Your task to perform on an android device: Do I have any events today? Image 0: 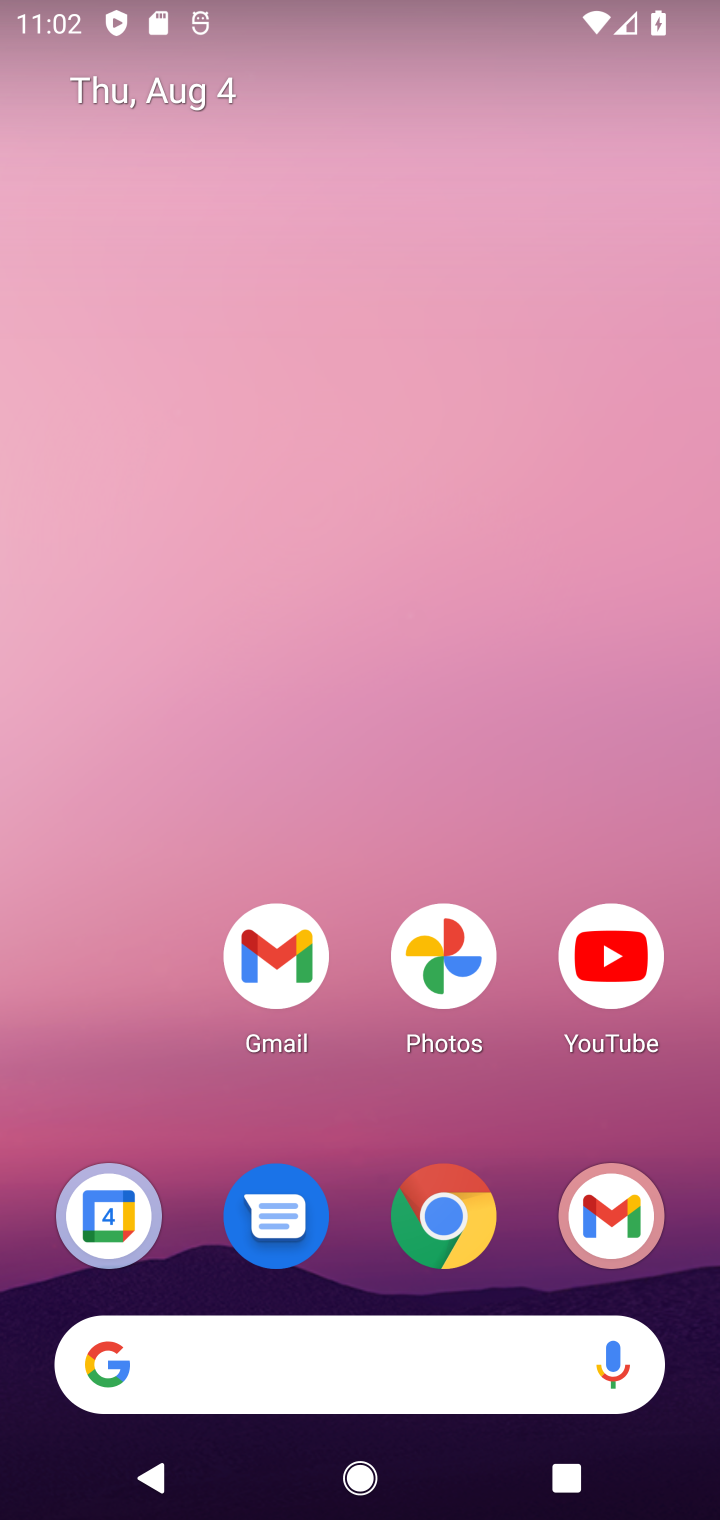
Step 0: click (109, 1217)
Your task to perform on an android device: Do I have any events today? Image 1: 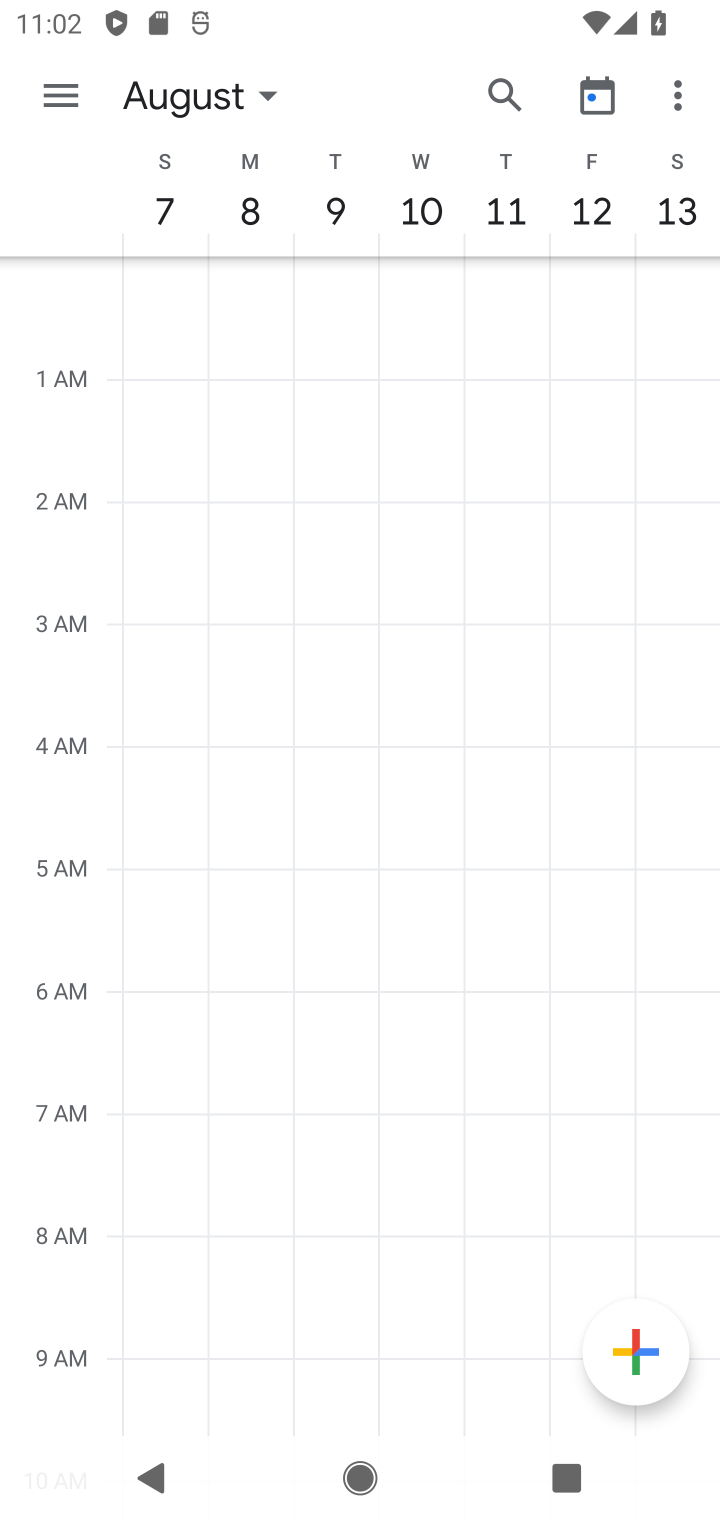
Step 1: drag from (153, 551) to (717, 435)
Your task to perform on an android device: Do I have any events today? Image 2: 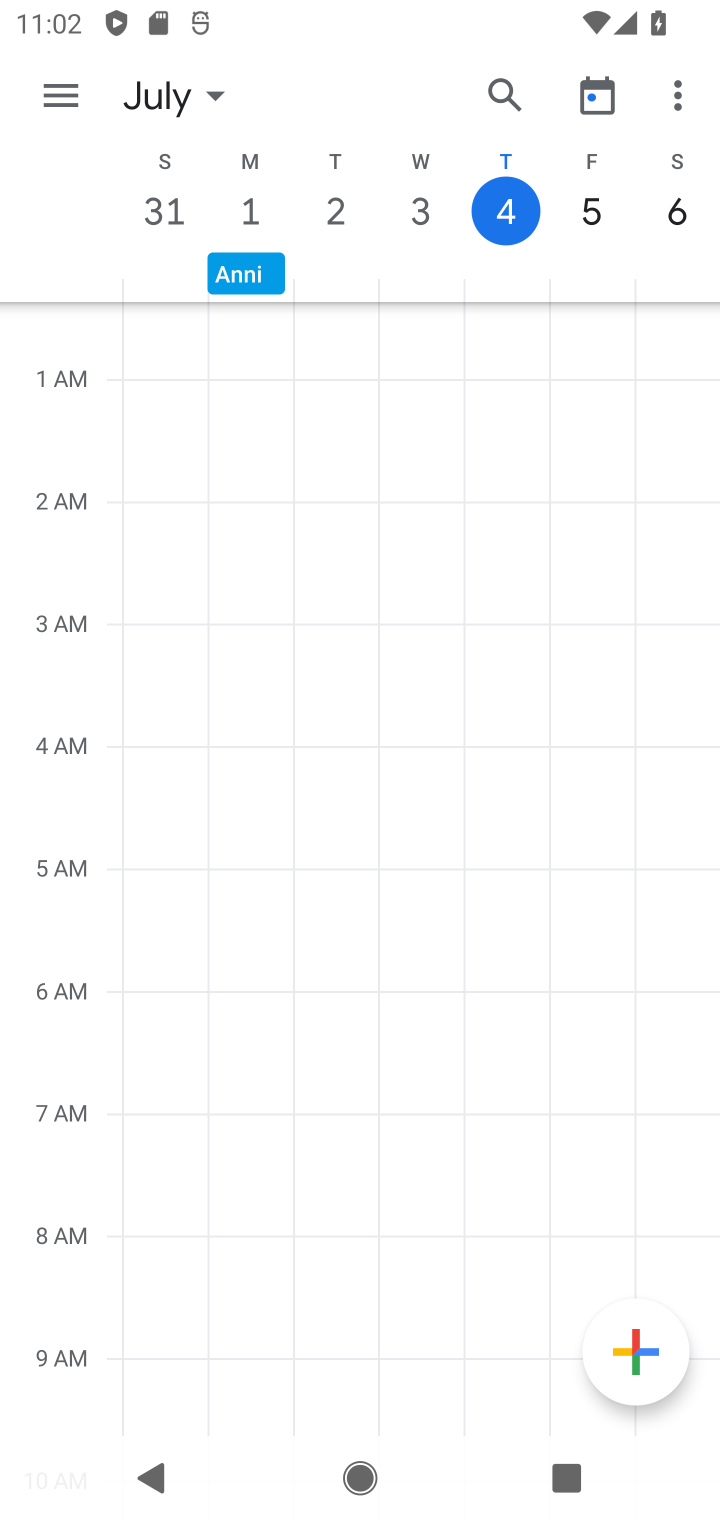
Step 2: click (511, 214)
Your task to perform on an android device: Do I have any events today? Image 3: 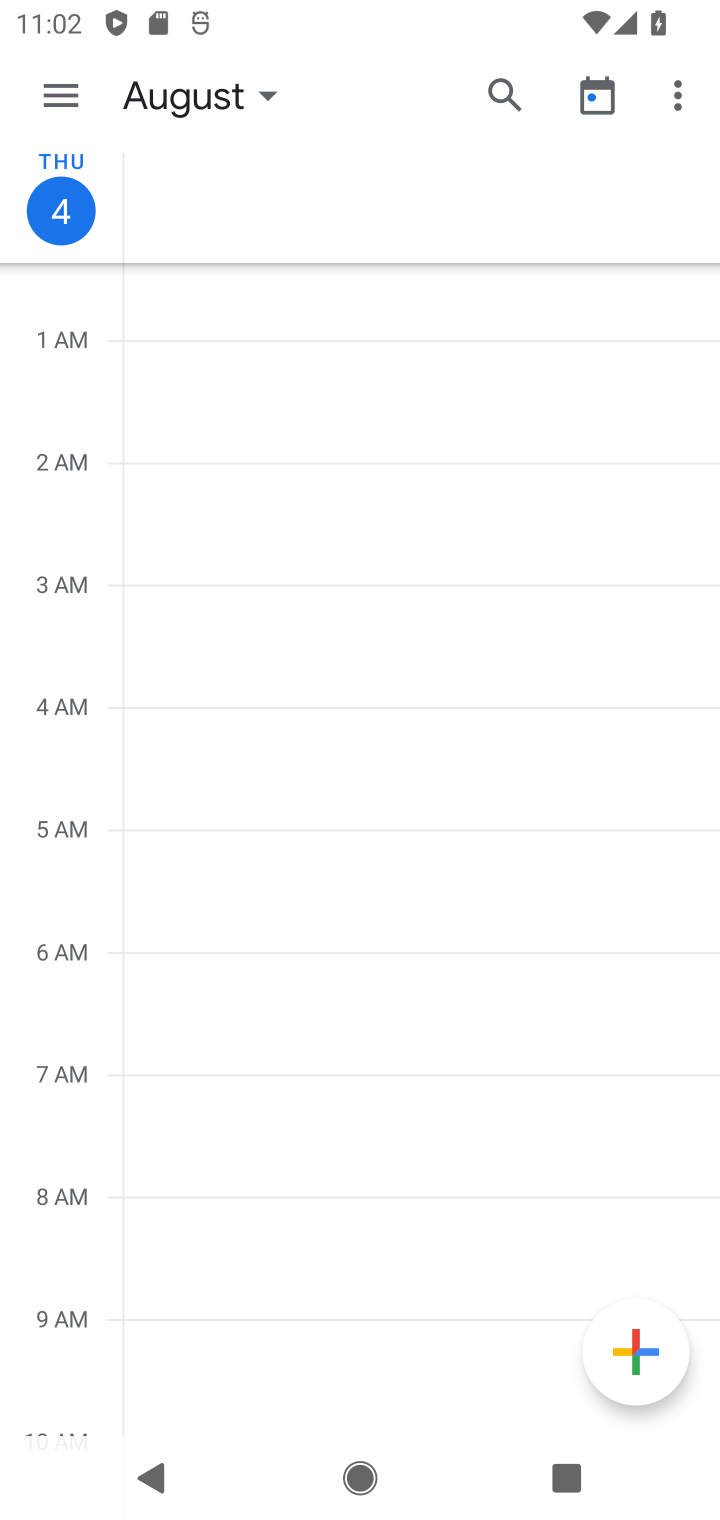
Step 3: task complete